Your task to perform on an android device: Go to display settings Image 0: 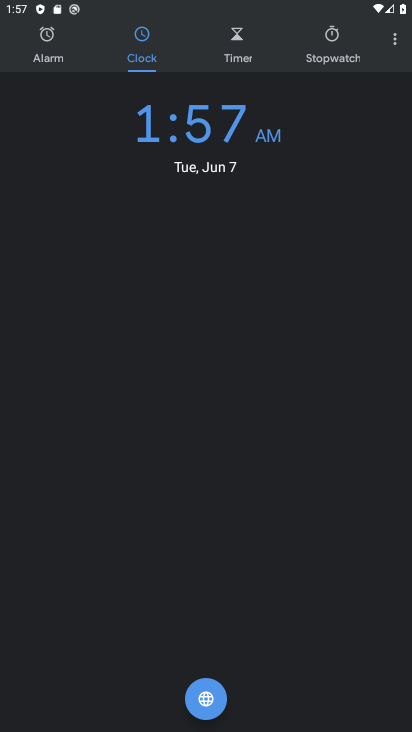
Step 0: press home button
Your task to perform on an android device: Go to display settings Image 1: 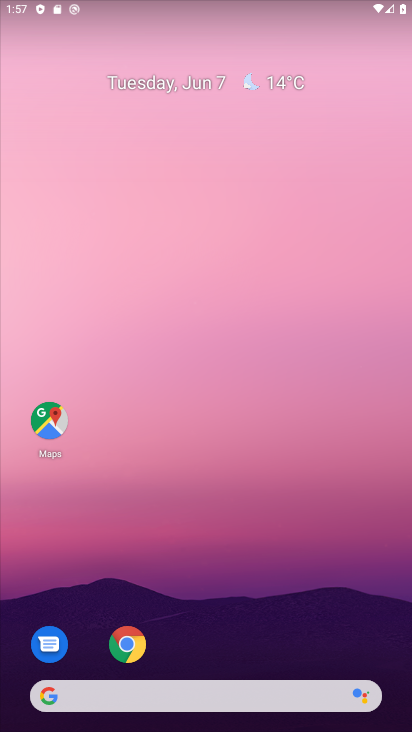
Step 1: drag from (312, 523) to (346, 152)
Your task to perform on an android device: Go to display settings Image 2: 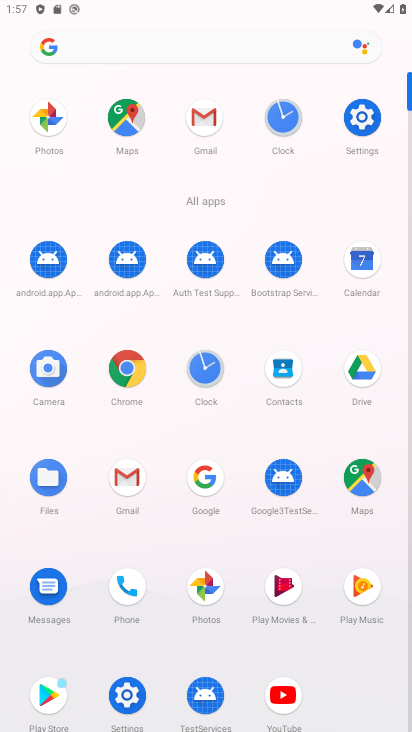
Step 2: click (371, 125)
Your task to perform on an android device: Go to display settings Image 3: 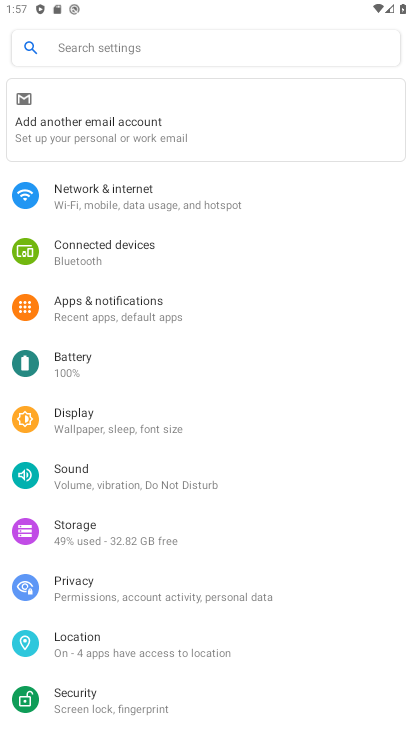
Step 3: drag from (330, 275) to (323, 396)
Your task to perform on an android device: Go to display settings Image 4: 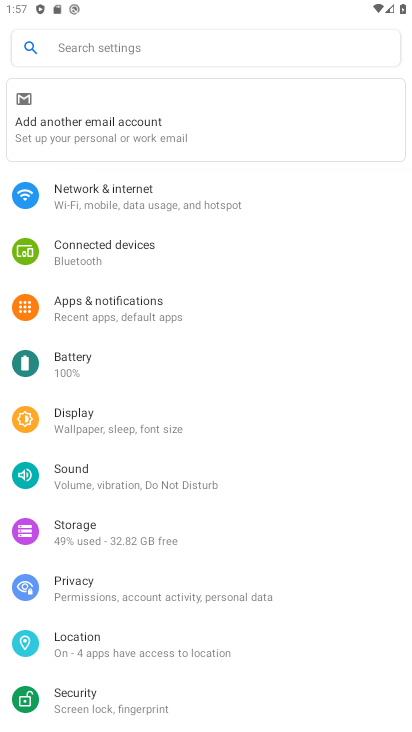
Step 4: drag from (342, 473) to (334, 318)
Your task to perform on an android device: Go to display settings Image 5: 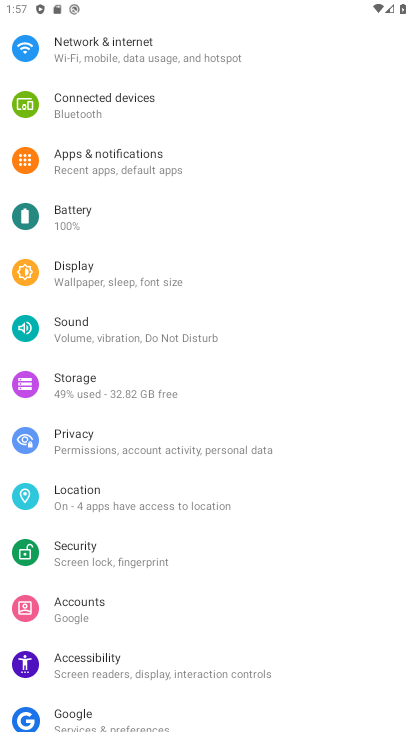
Step 5: drag from (326, 398) to (335, 172)
Your task to perform on an android device: Go to display settings Image 6: 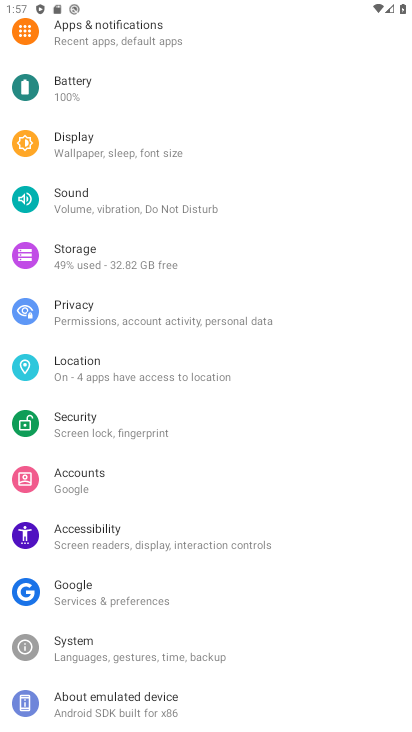
Step 6: drag from (335, 169) to (342, 307)
Your task to perform on an android device: Go to display settings Image 7: 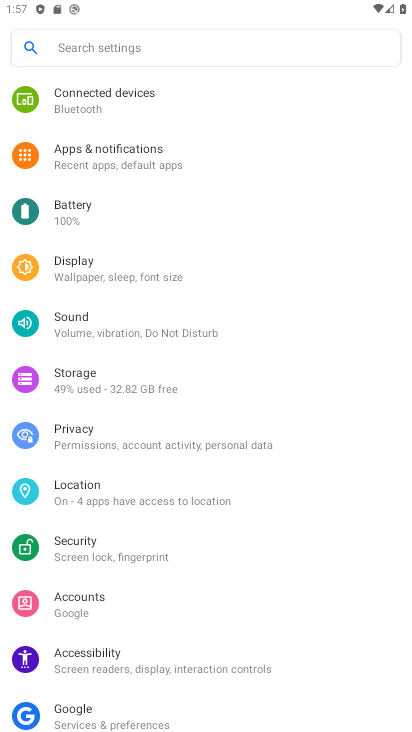
Step 7: drag from (326, 135) to (329, 297)
Your task to perform on an android device: Go to display settings Image 8: 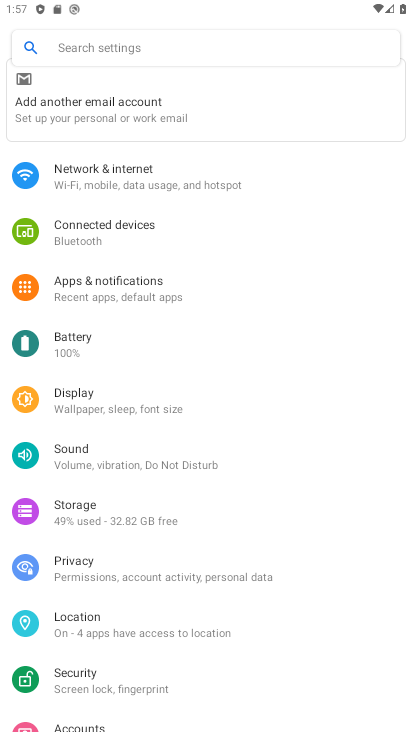
Step 8: click (217, 395)
Your task to perform on an android device: Go to display settings Image 9: 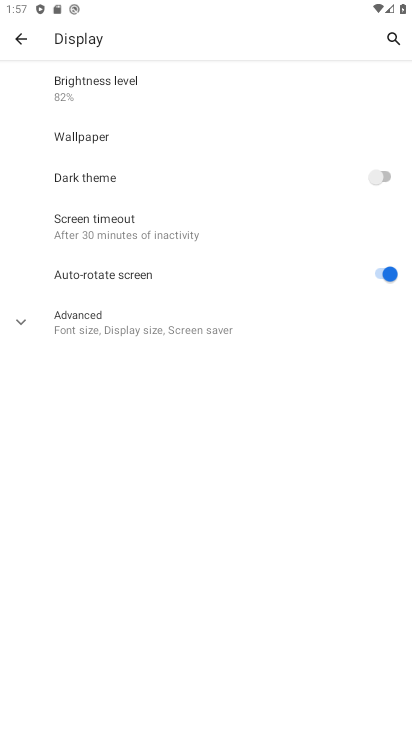
Step 9: click (250, 321)
Your task to perform on an android device: Go to display settings Image 10: 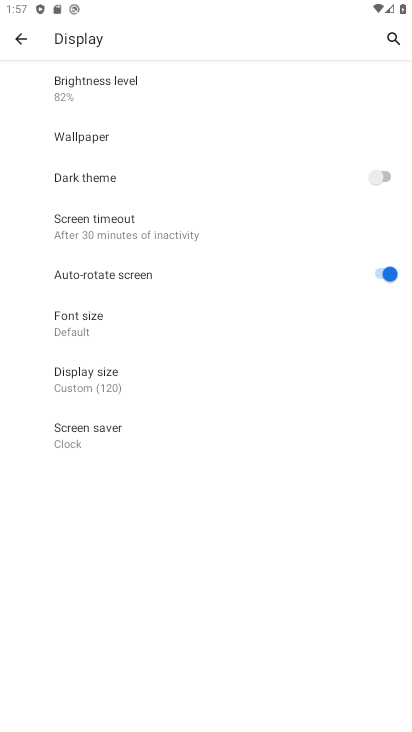
Step 10: task complete